Your task to perform on an android device: add a contact in the contacts app Image 0: 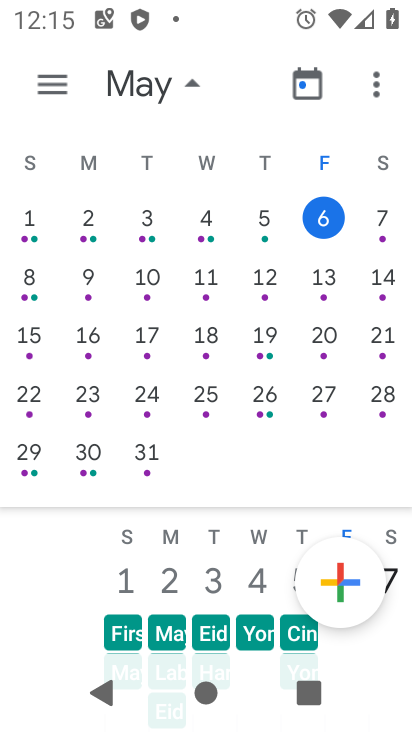
Step 0: press home button
Your task to perform on an android device: add a contact in the contacts app Image 1: 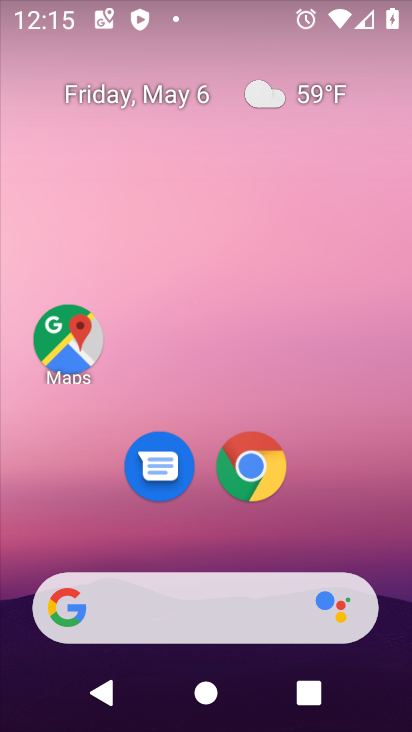
Step 1: click (242, 452)
Your task to perform on an android device: add a contact in the contacts app Image 2: 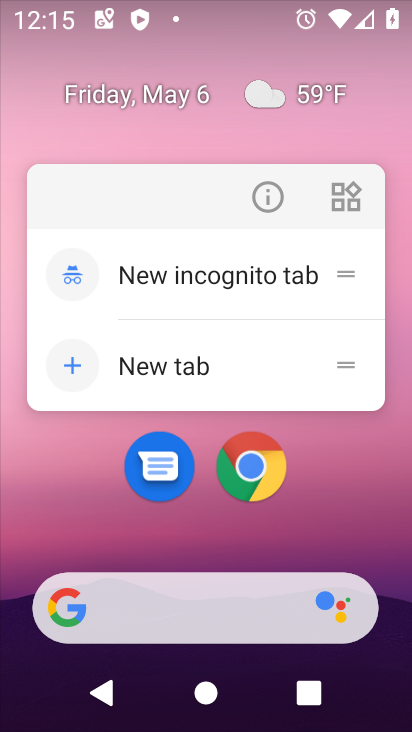
Step 2: click (346, 479)
Your task to perform on an android device: add a contact in the contacts app Image 3: 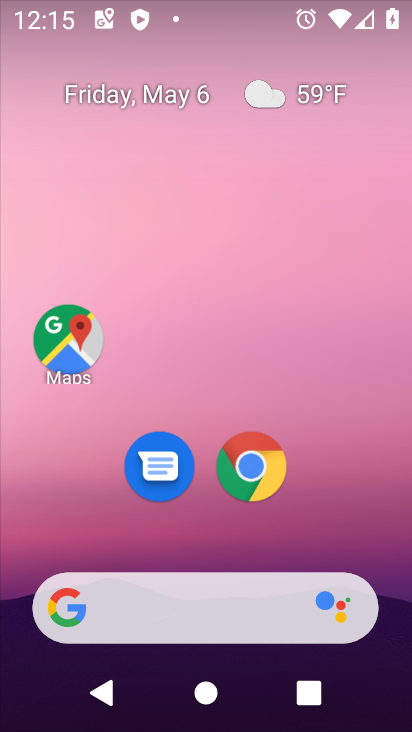
Step 3: drag from (219, 543) to (235, 40)
Your task to perform on an android device: add a contact in the contacts app Image 4: 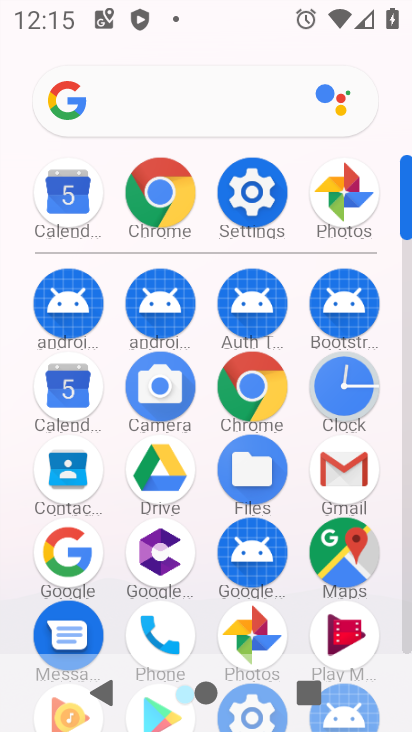
Step 4: click (64, 477)
Your task to perform on an android device: add a contact in the contacts app Image 5: 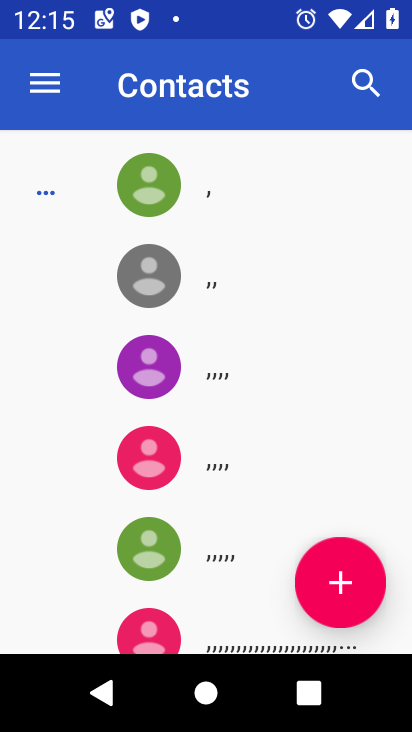
Step 5: click (341, 607)
Your task to perform on an android device: add a contact in the contacts app Image 6: 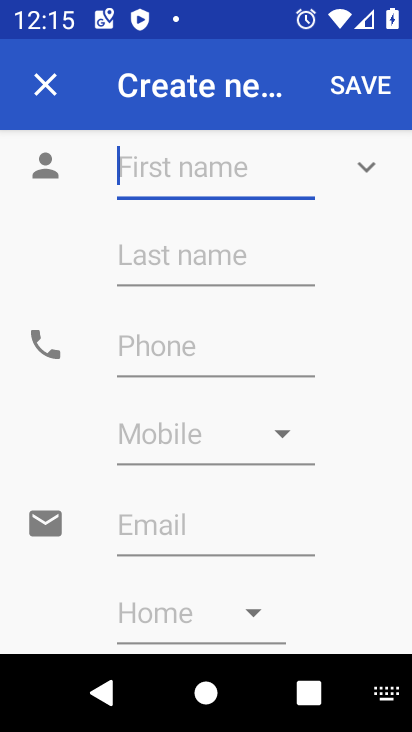
Step 6: type "gcvhn"
Your task to perform on an android device: add a contact in the contacts app Image 7: 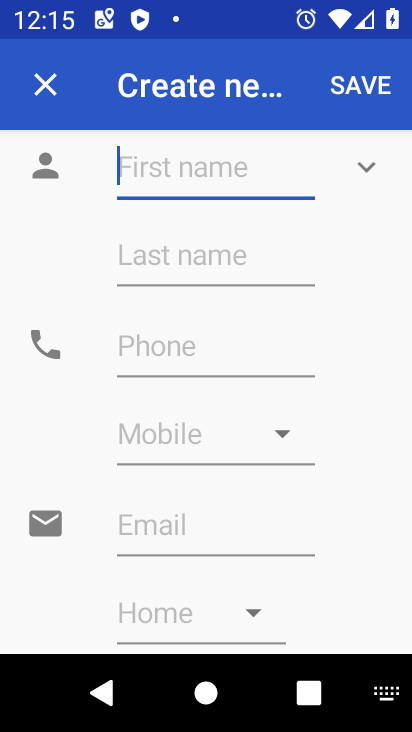
Step 7: click (207, 270)
Your task to perform on an android device: add a contact in the contacts app Image 8: 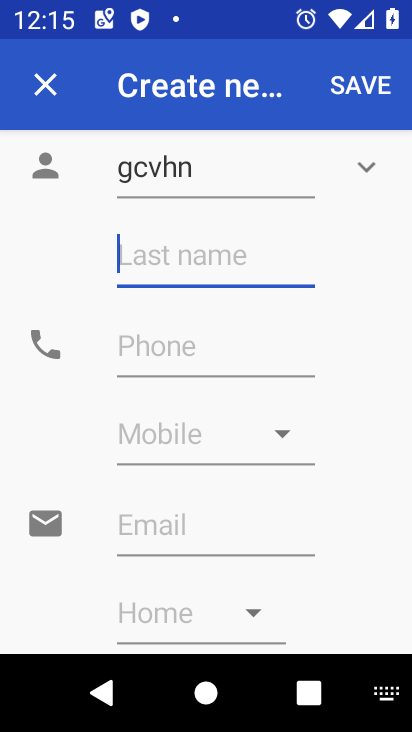
Step 8: type "gfb"
Your task to perform on an android device: add a contact in the contacts app Image 9: 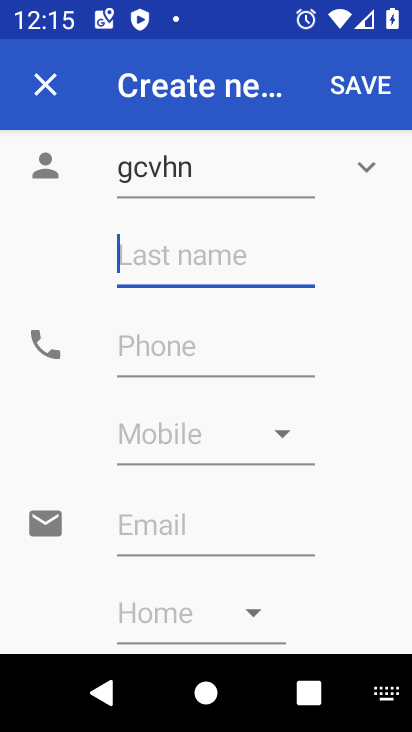
Step 9: click (158, 347)
Your task to perform on an android device: add a contact in the contacts app Image 10: 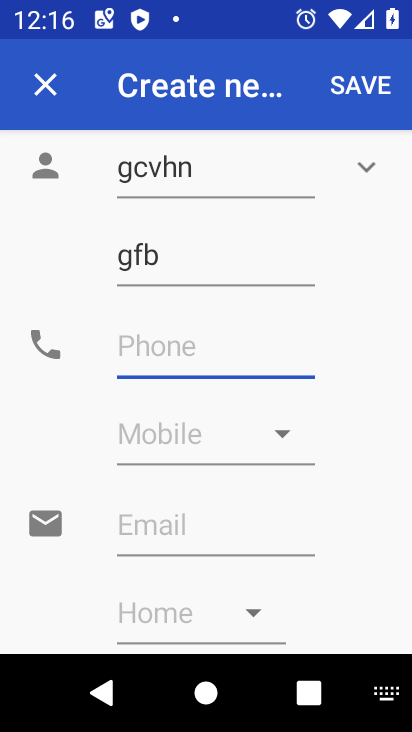
Step 10: type "677"
Your task to perform on an android device: add a contact in the contacts app Image 11: 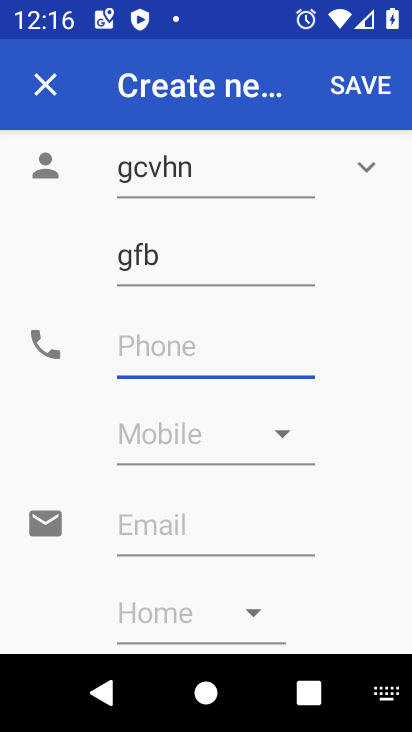
Step 11: click (197, 441)
Your task to perform on an android device: add a contact in the contacts app Image 12: 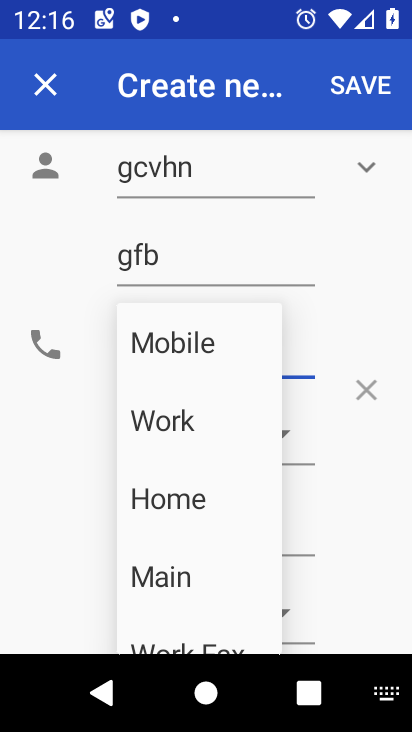
Step 12: click (384, 85)
Your task to perform on an android device: add a contact in the contacts app Image 13: 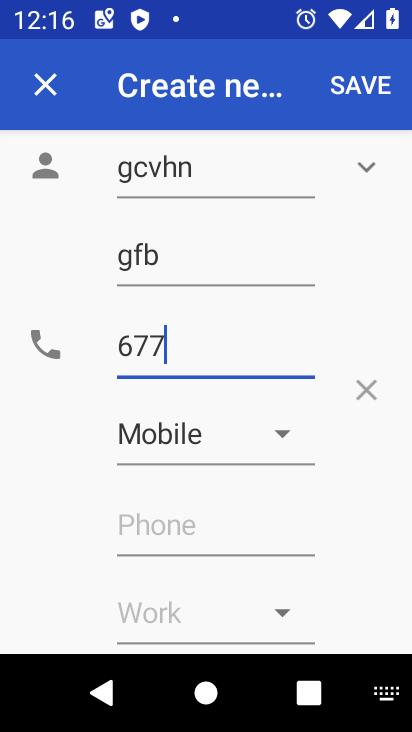
Step 13: click (366, 86)
Your task to perform on an android device: add a contact in the contacts app Image 14: 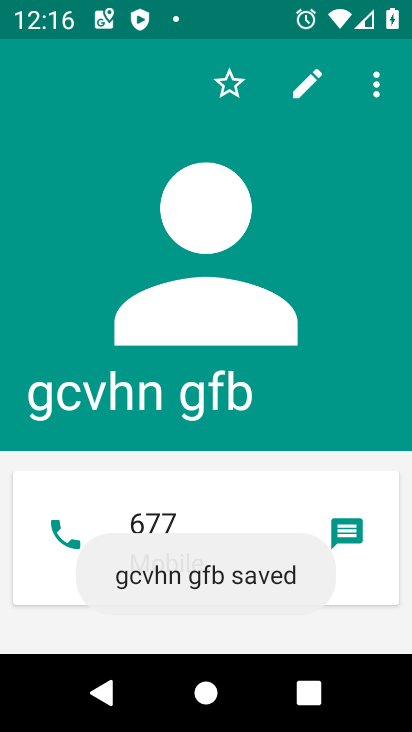
Step 14: task complete